Your task to perform on an android device: Go to Android settings Image 0: 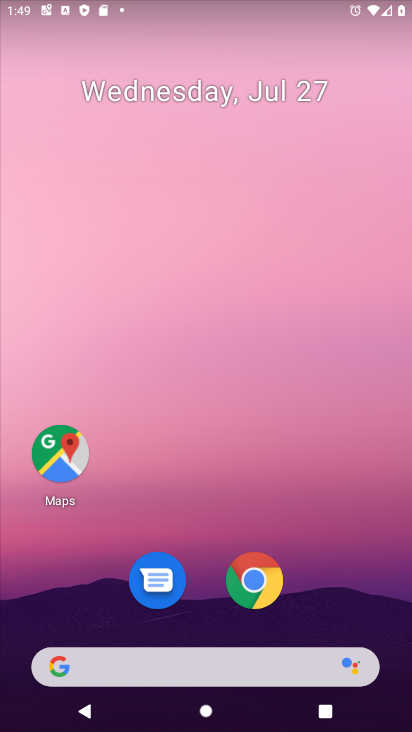
Step 0: drag from (265, 689) to (195, 282)
Your task to perform on an android device: Go to Android settings Image 1: 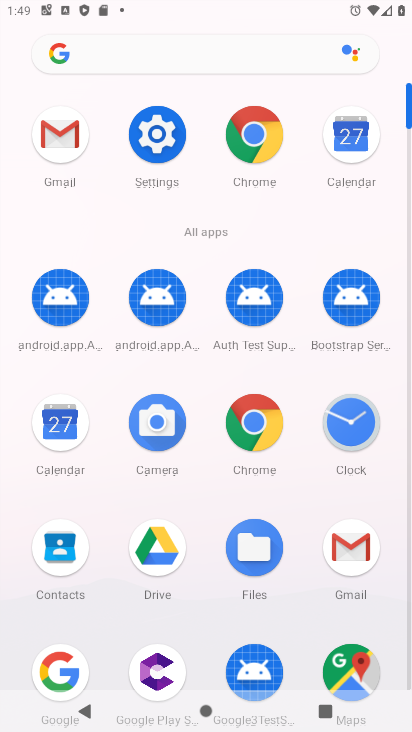
Step 1: click (156, 135)
Your task to perform on an android device: Go to Android settings Image 2: 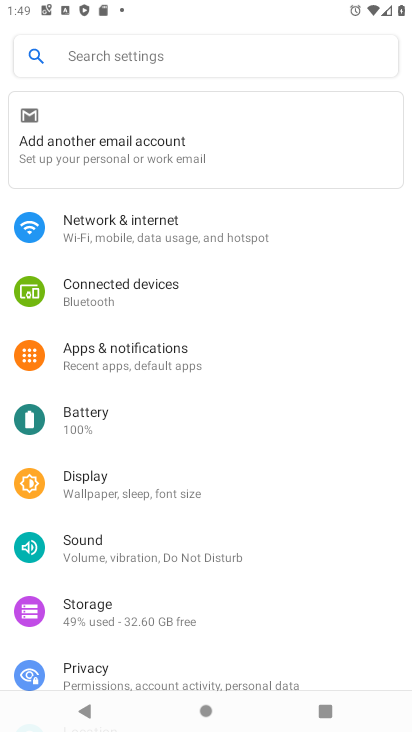
Step 2: click (106, 60)
Your task to perform on an android device: Go to Android settings Image 3: 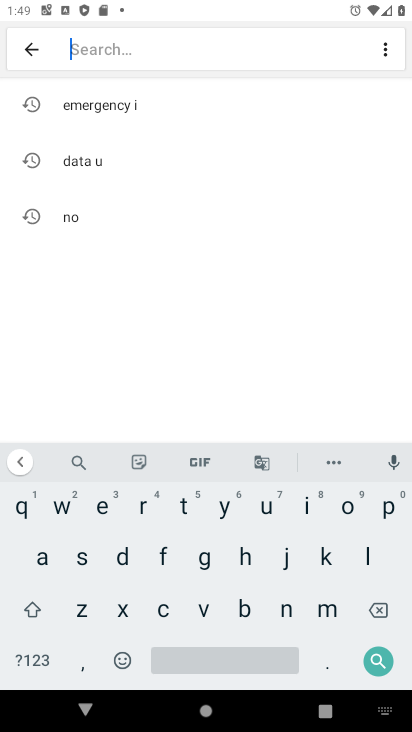
Step 3: click (36, 561)
Your task to perform on an android device: Go to Android settings Image 4: 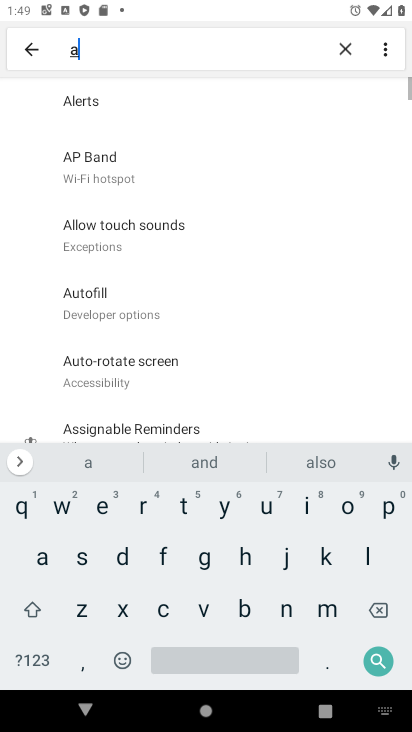
Step 4: click (286, 613)
Your task to perform on an android device: Go to Android settings Image 5: 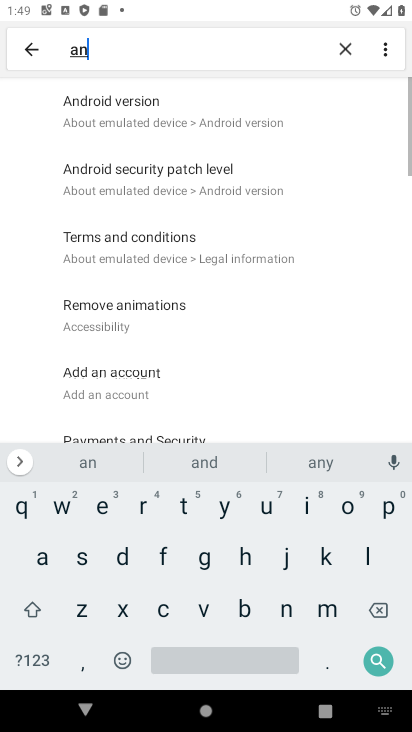
Step 5: click (137, 104)
Your task to perform on an android device: Go to Android settings Image 6: 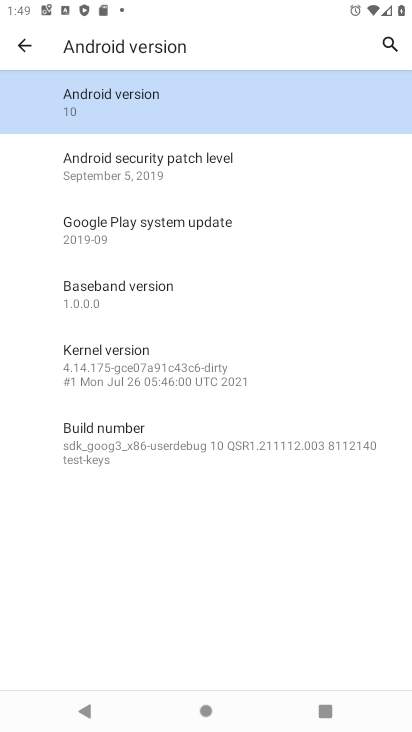
Step 6: click (197, 87)
Your task to perform on an android device: Go to Android settings Image 7: 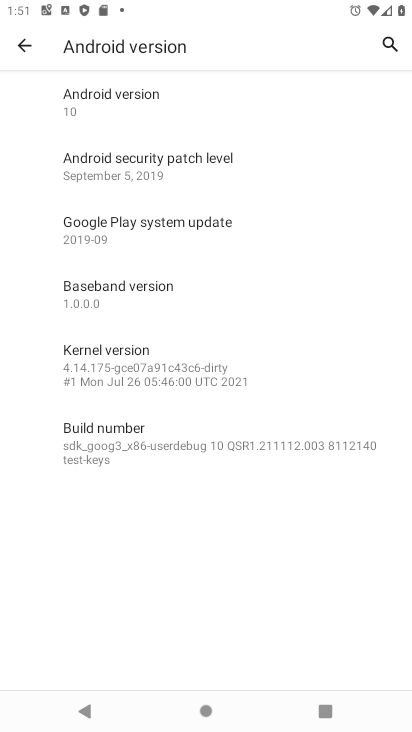
Step 7: task complete